Your task to perform on an android device: snooze an email in the gmail app Image 0: 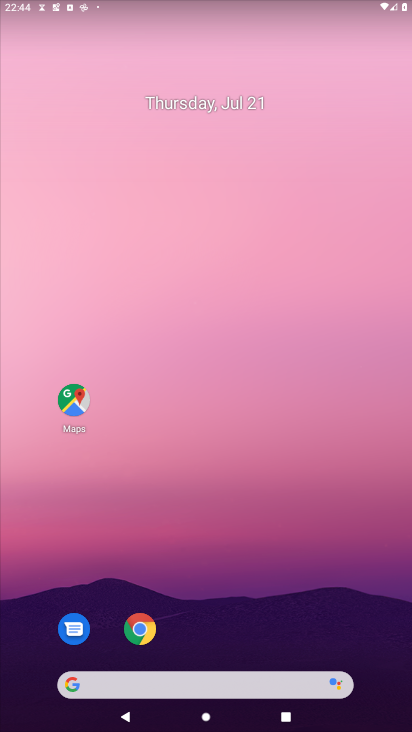
Step 0: drag from (197, 641) to (228, 91)
Your task to perform on an android device: snooze an email in the gmail app Image 1: 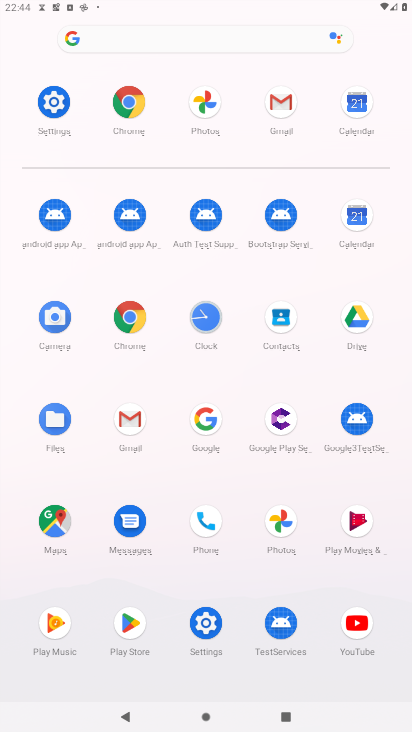
Step 1: click (125, 420)
Your task to perform on an android device: snooze an email in the gmail app Image 2: 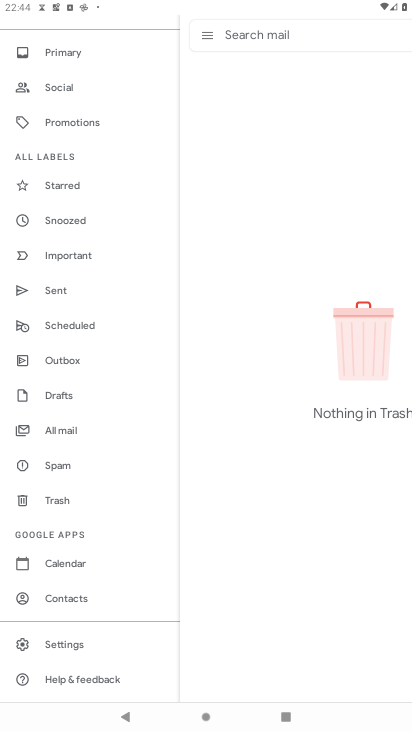
Step 2: click (61, 220)
Your task to perform on an android device: snooze an email in the gmail app Image 3: 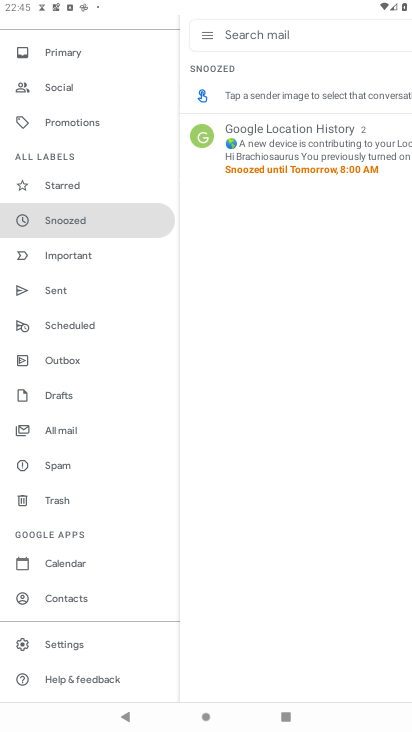
Step 3: drag from (83, 78) to (71, 395)
Your task to perform on an android device: snooze an email in the gmail app Image 4: 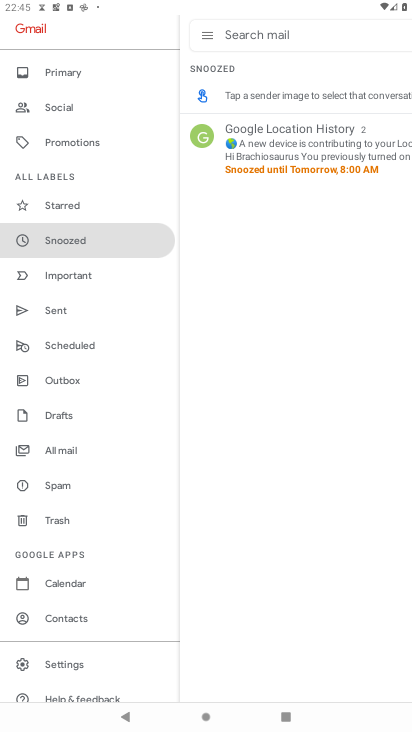
Step 4: click (66, 457)
Your task to perform on an android device: snooze an email in the gmail app Image 5: 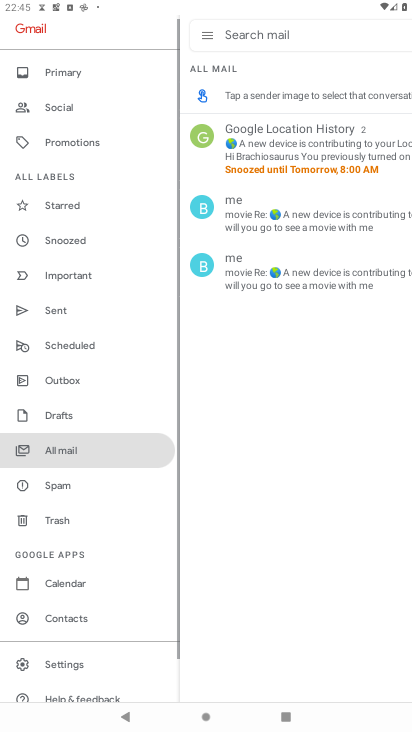
Step 5: click (77, 250)
Your task to perform on an android device: snooze an email in the gmail app Image 6: 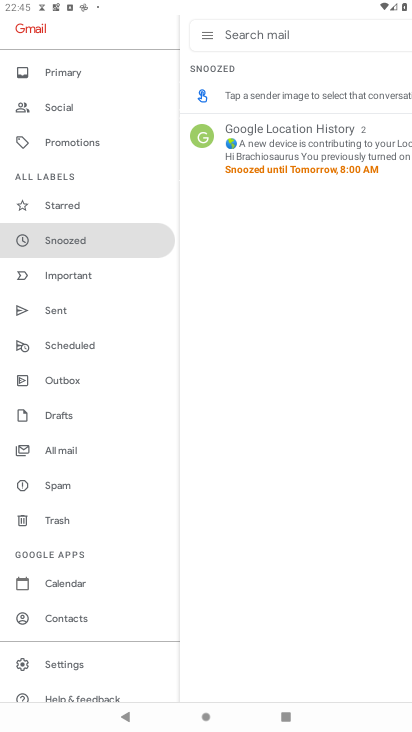
Step 6: click (86, 460)
Your task to perform on an android device: snooze an email in the gmail app Image 7: 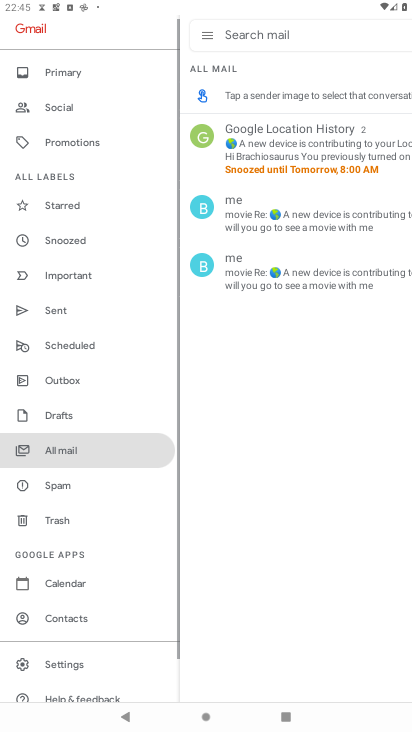
Step 7: click (299, 164)
Your task to perform on an android device: snooze an email in the gmail app Image 8: 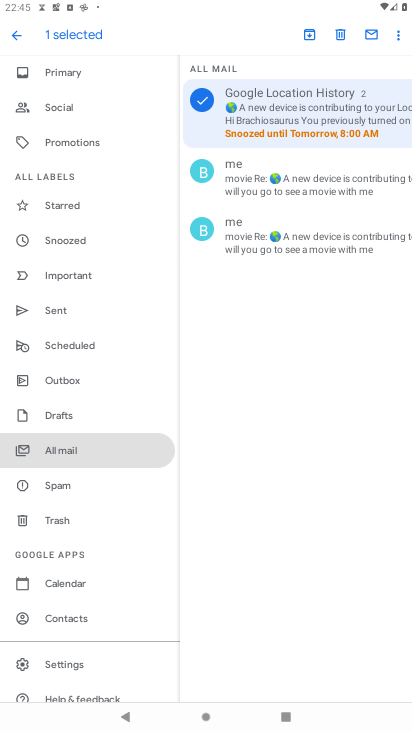
Step 8: click (295, 184)
Your task to perform on an android device: snooze an email in the gmail app Image 9: 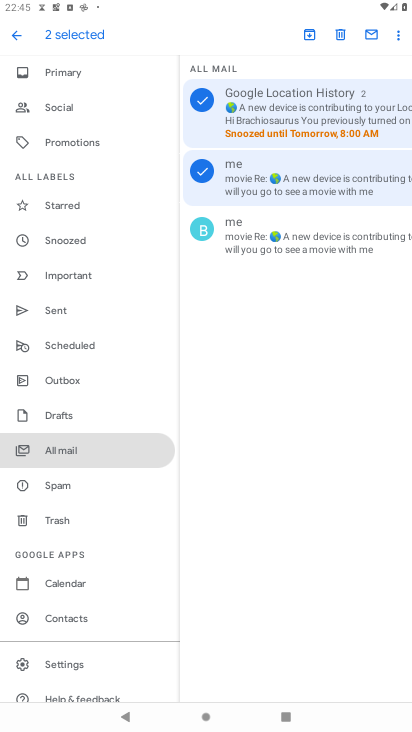
Step 9: click (280, 121)
Your task to perform on an android device: snooze an email in the gmail app Image 10: 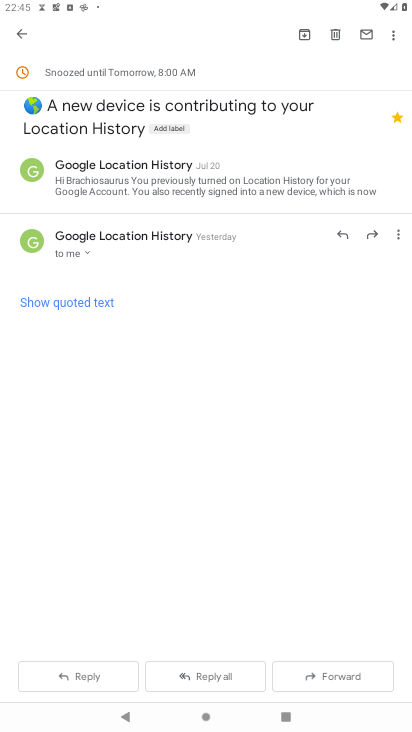
Step 10: click (399, 38)
Your task to perform on an android device: snooze an email in the gmail app Image 11: 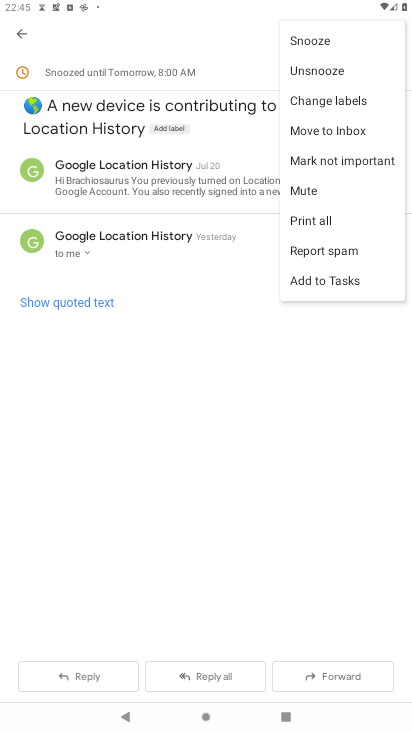
Step 11: click (325, 46)
Your task to perform on an android device: snooze an email in the gmail app Image 12: 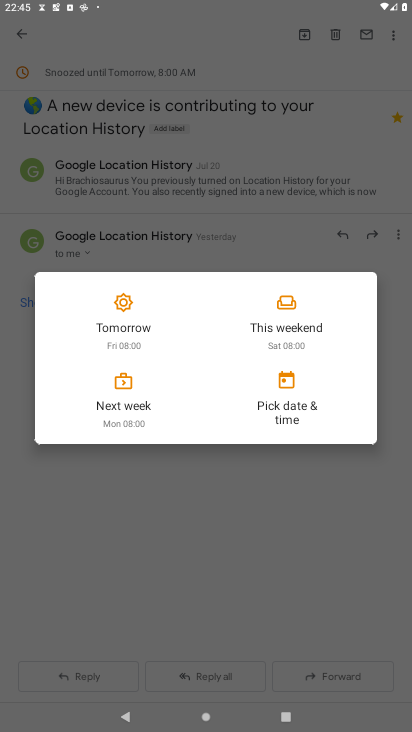
Step 12: click (135, 313)
Your task to perform on an android device: snooze an email in the gmail app Image 13: 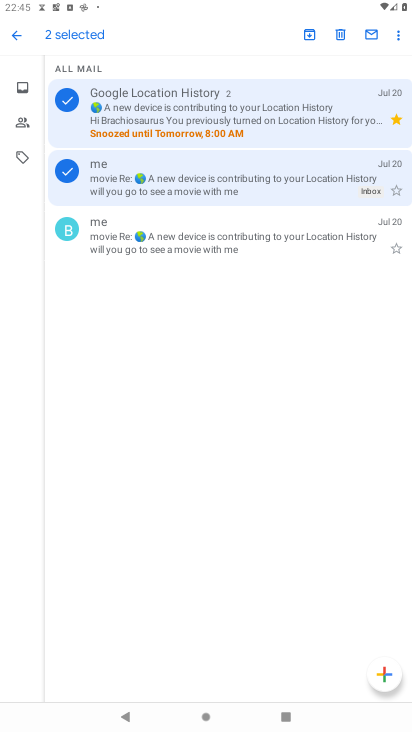
Step 13: click (398, 34)
Your task to perform on an android device: snooze an email in the gmail app Image 14: 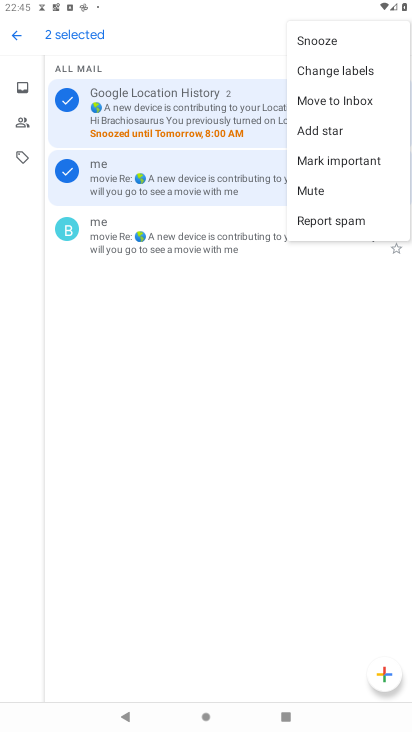
Step 14: click (334, 31)
Your task to perform on an android device: snooze an email in the gmail app Image 15: 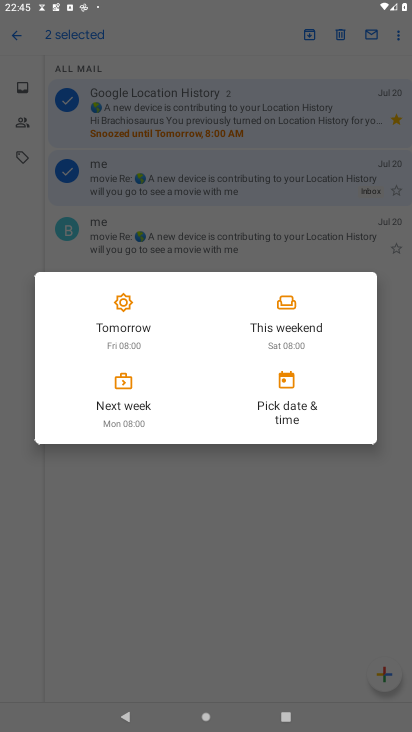
Step 15: click (297, 313)
Your task to perform on an android device: snooze an email in the gmail app Image 16: 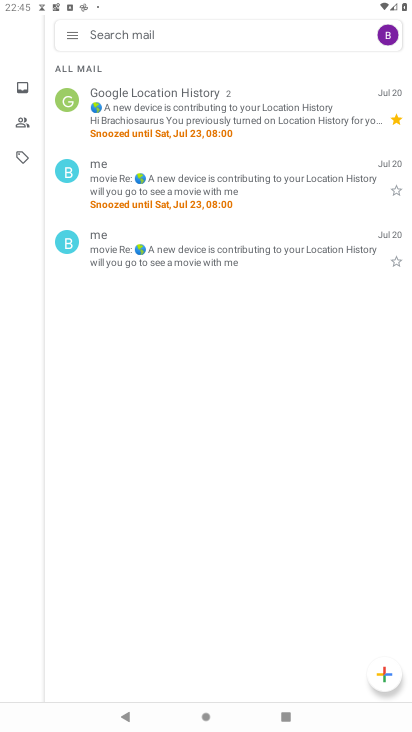
Step 16: task complete